Your task to perform on an android device: turn on wifi Image 0: 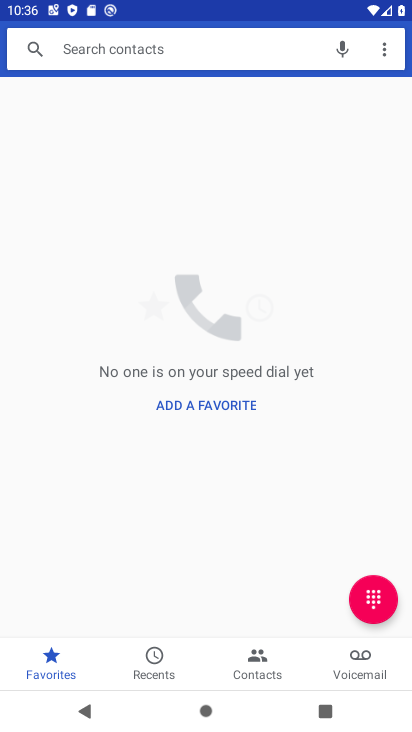
Step 0: press home button
Your task to perform on an android device: turn on wifi Image 1: 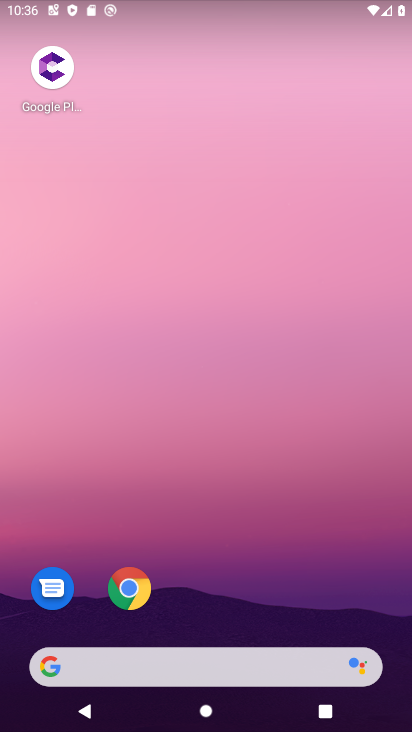
Step 1: drag from (202, 509) to (202, 15)
Your task to perform on an android device: turn on wifi Image 2: 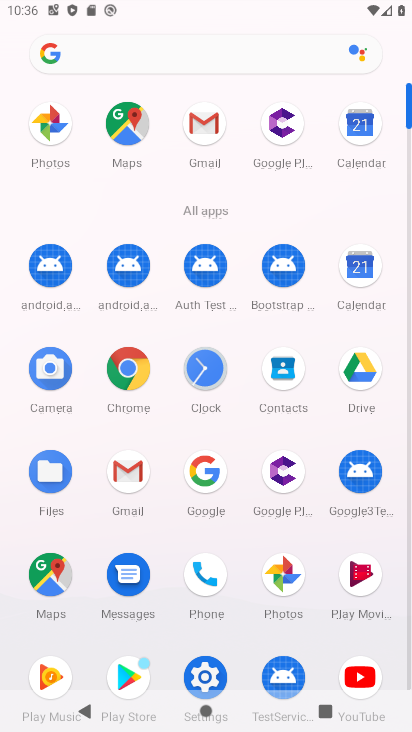
Step 2: click (201, 665)
Your task to perform on an android device: turn on wifi Image 3: 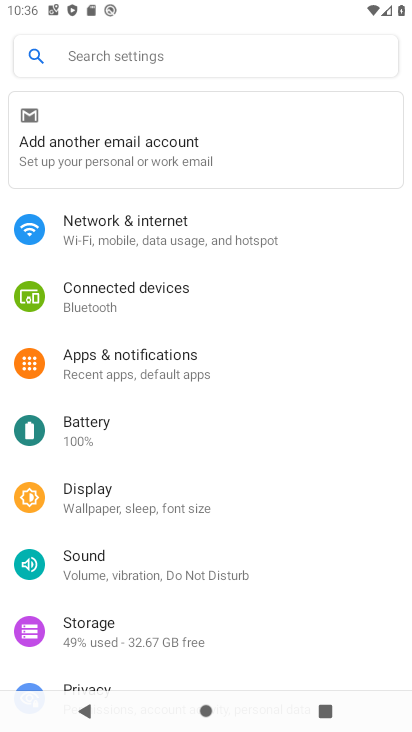
Step 3: click (156, 243)
Your task to perform on an android device: turn on wifi Image 4: 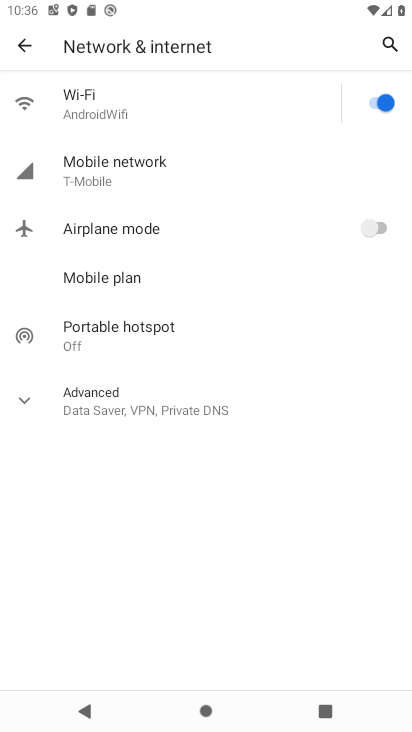
Step 4: task complete